Your task to perform on an android device: What's the weather today? Image 0: 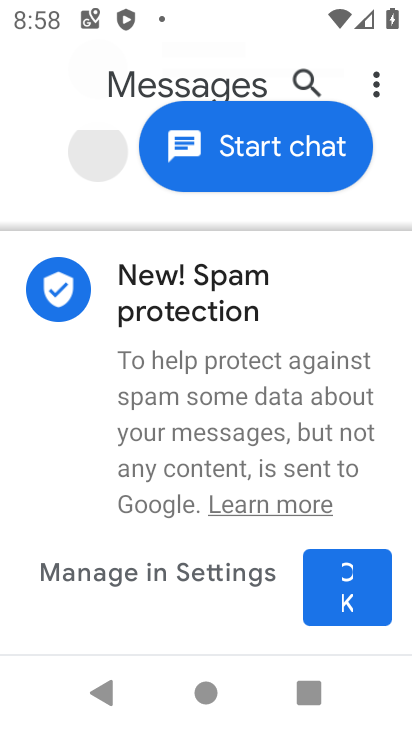
Step 0: press home button
Your task to perform on an android device: What's the weather today? Image 1: 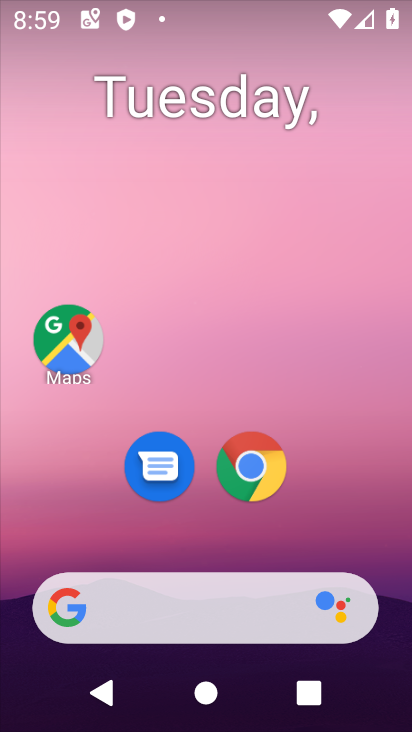
Step 1: click (167, 602)
Your task to perform on an android device: What's the weather today? Image 2: 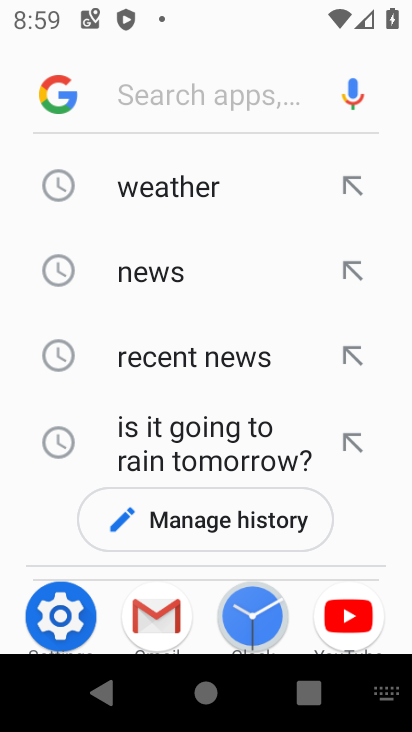
Step 2: click (198, 185)
Your task to perform on an android device: What's the weather today? Image 3: 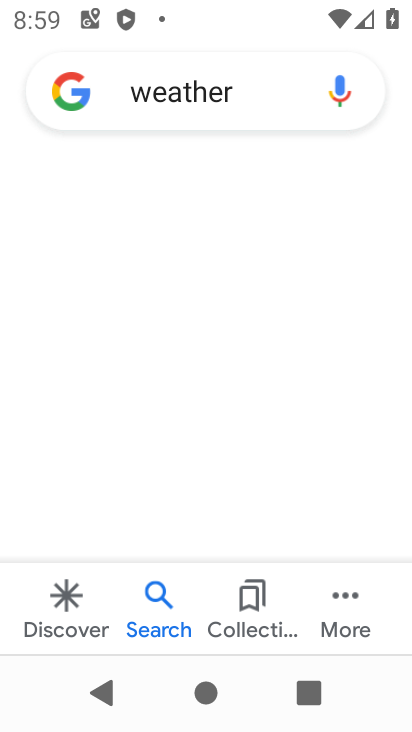
Step 3: task complete